Your task to perform on an android device: Open Youtube and go to the subscriptions tab Image 0: 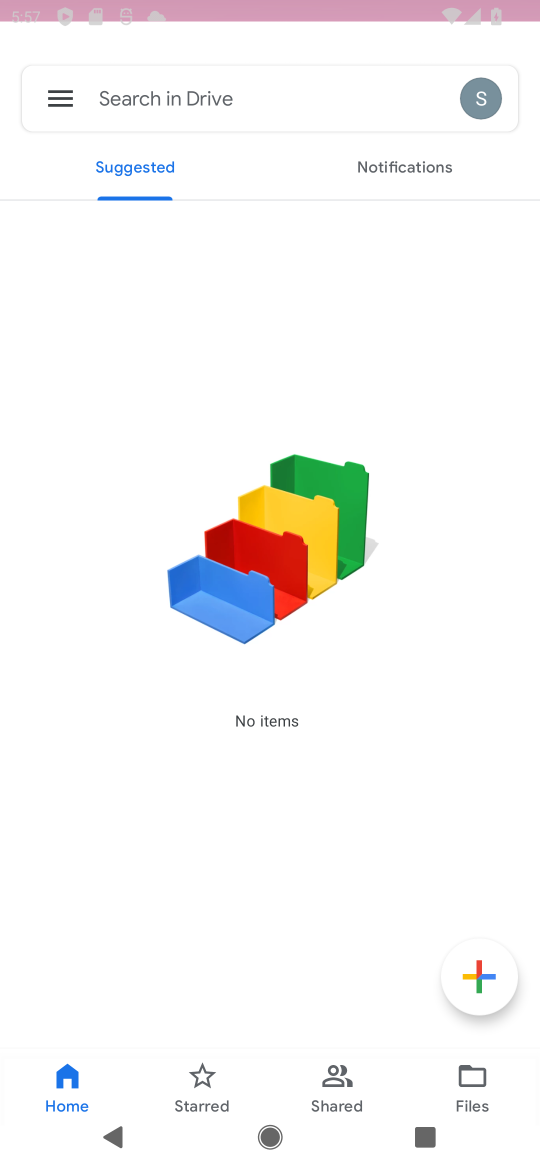
Step 0: press home button
Your task to perform on an android device: Open Youtube and go to the subscriptions tab Image 1: 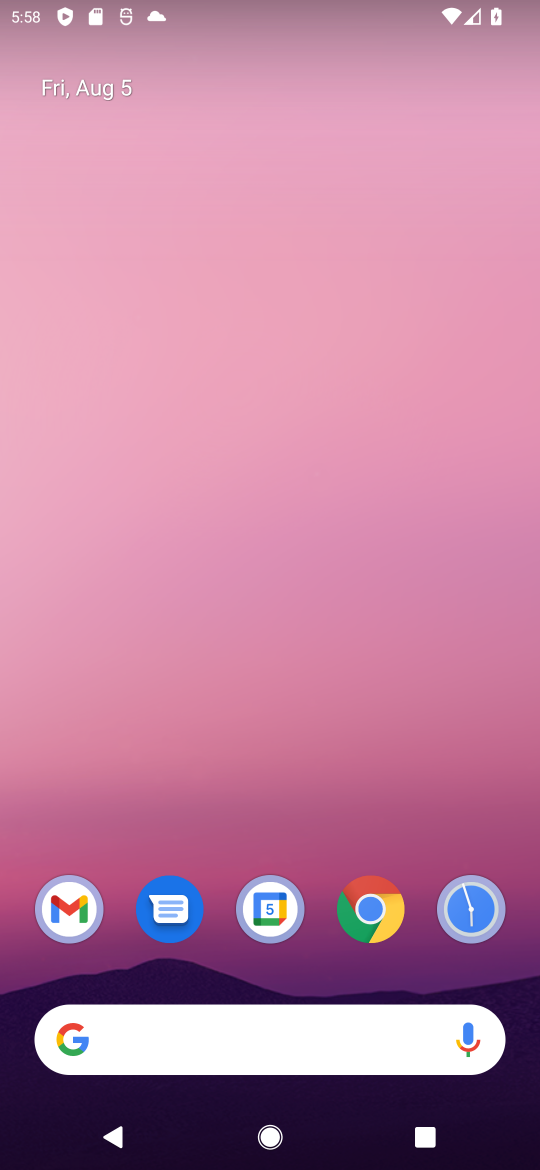
Step 1: drag from (231, 319) to (249, 63)
Your task to perform on an android device: Open Youtube and go to the subscriptions tab Image 2: 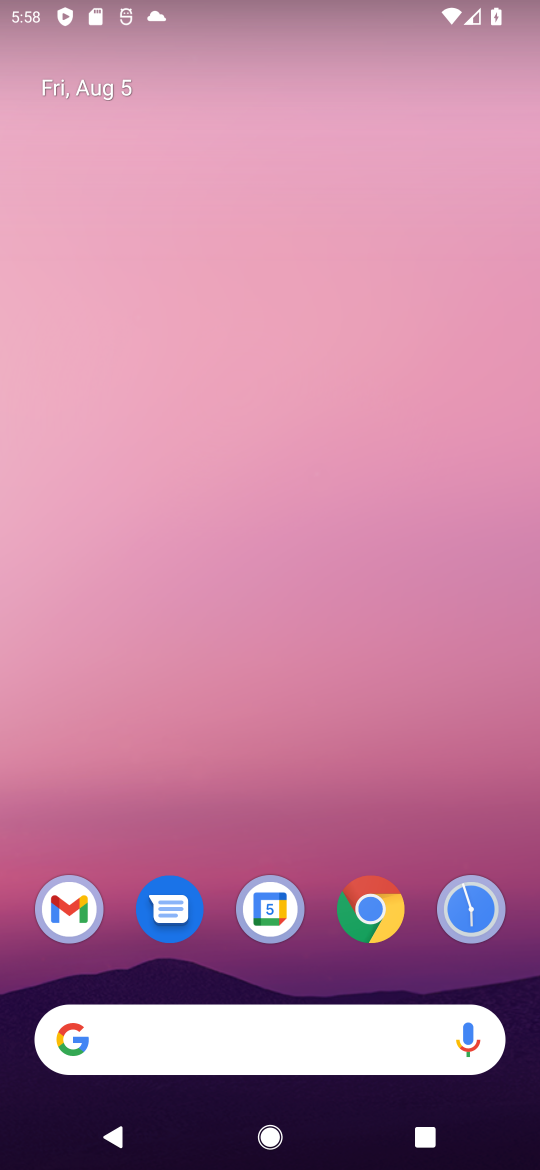
Step 2: drag from (312, 967) to (434, 1)
Your task to perform on an android device: Open Youtube and go to the subscriptions tab Image 3: 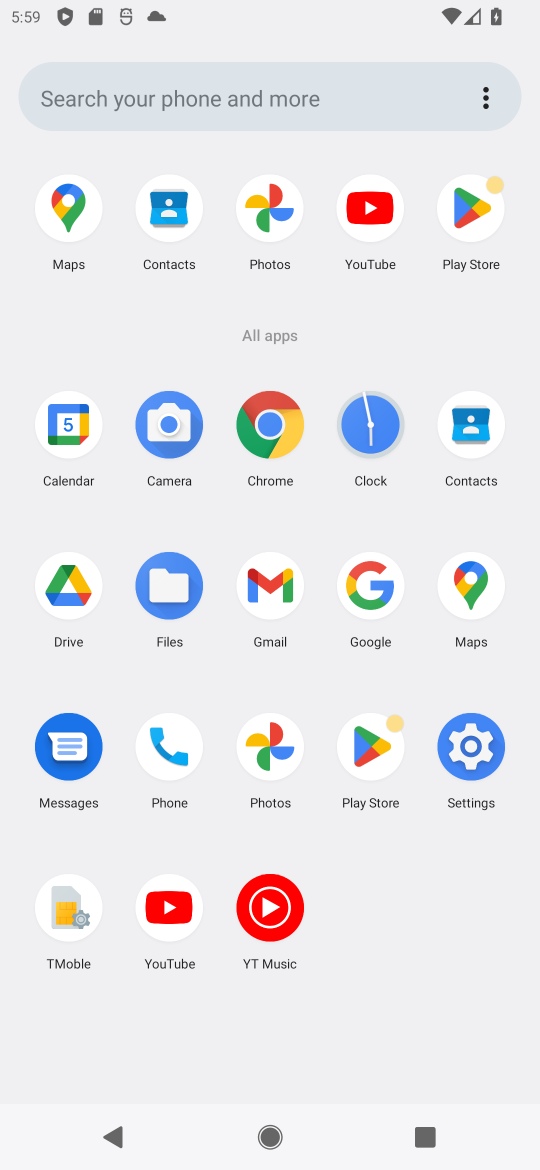
Step 3: click (157, 911)
Your task to perform on an android device: Open Youtube and go to the subscriptions tab Image 4: 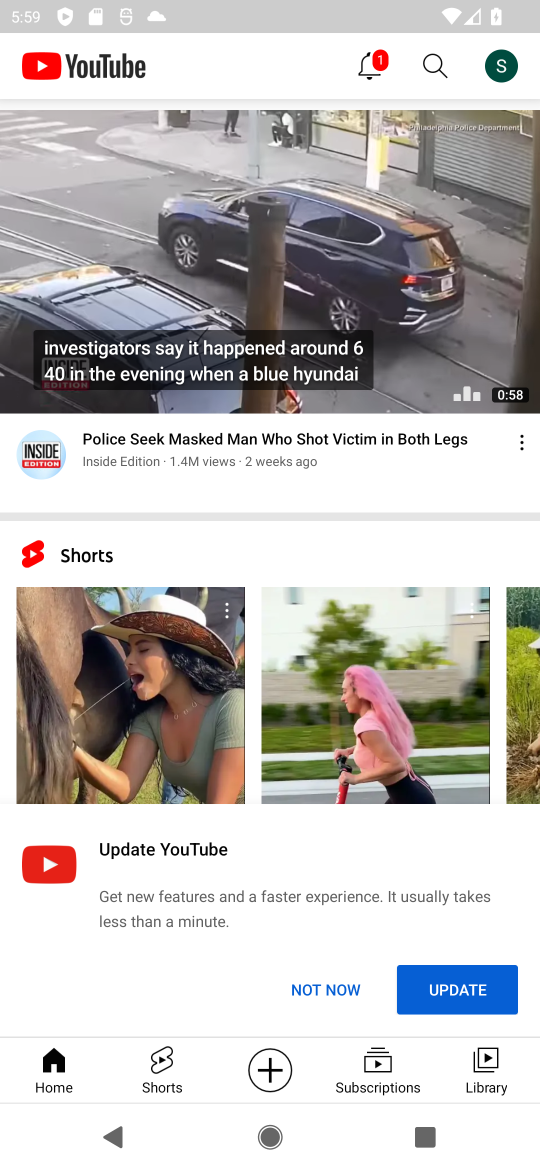
Step 4: click (365, 1066)
Your task to perform on an android device: Open Youtube and go to the subscriptions tab Image 5: 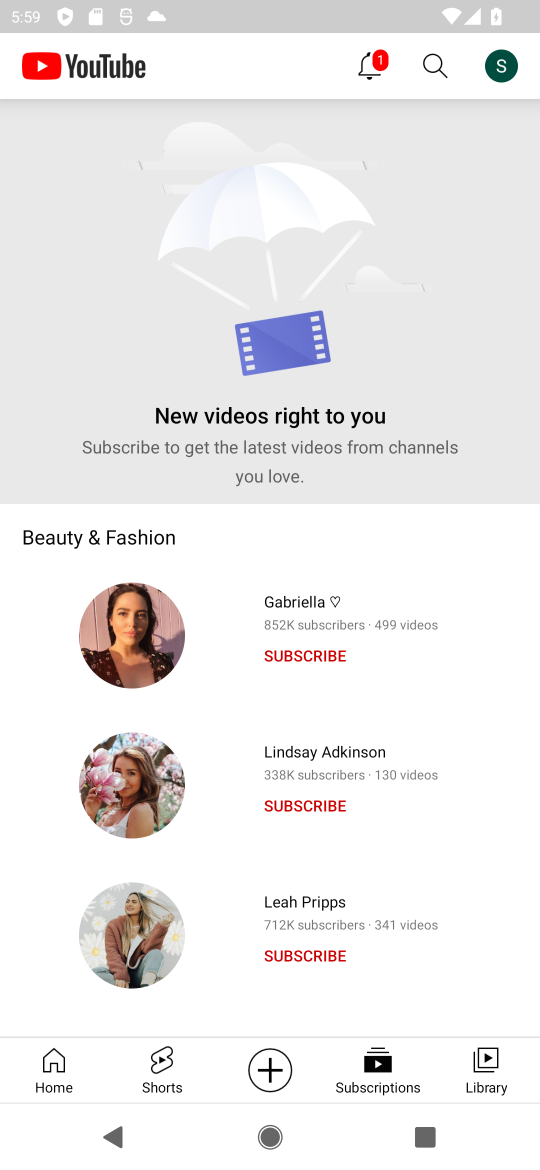
Step 5: task complete